Your task to perform on an android device: Search for Mexican restaurants on Maps Image 0: 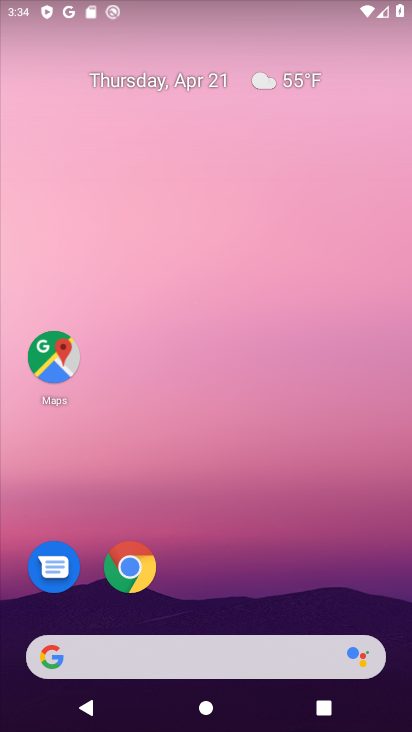
Step 0: drag from (225, 610) to (204, 42)
Your task to perform on an android device: Search for Mexican restaurants on Maps Image 1: 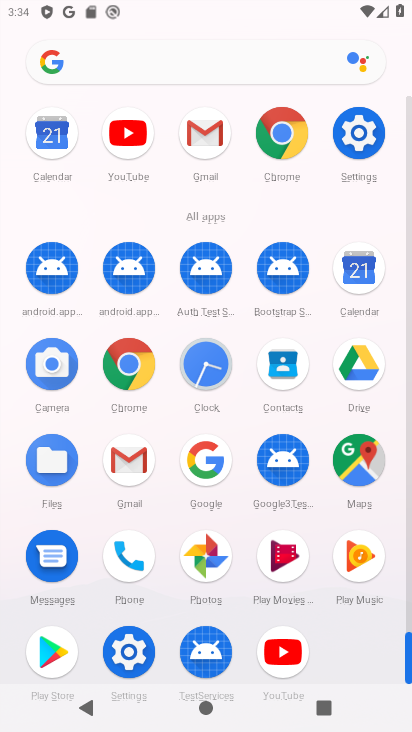
Step 1: click (371, 459)
Your task to perform on an android device: Search for Mexican restaurants on Maps Image 2: 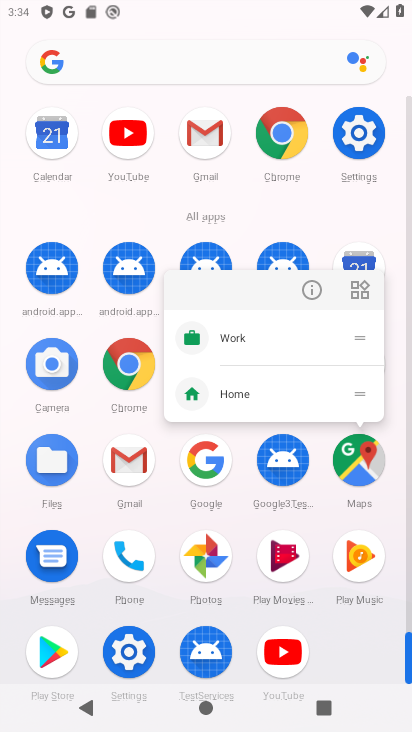
Step 2: click (359, 455)
Your task to perform on an android device: Search for Mexican restaurants on Maps Image 3: 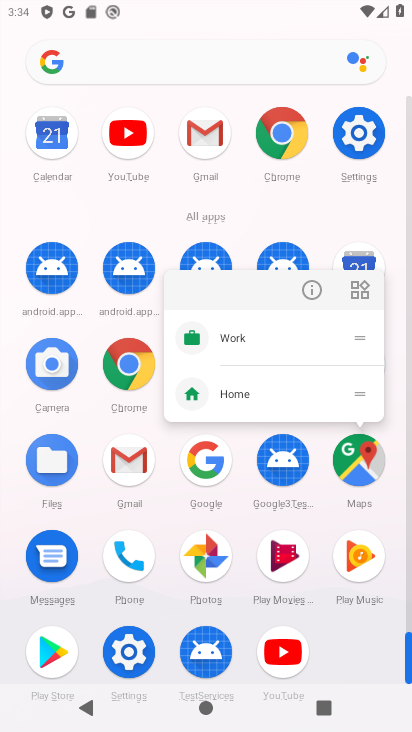
Step 3: click (358, 455)
Your task to perform on an android device: Search for Mexican restaurants on Maps Image 4: 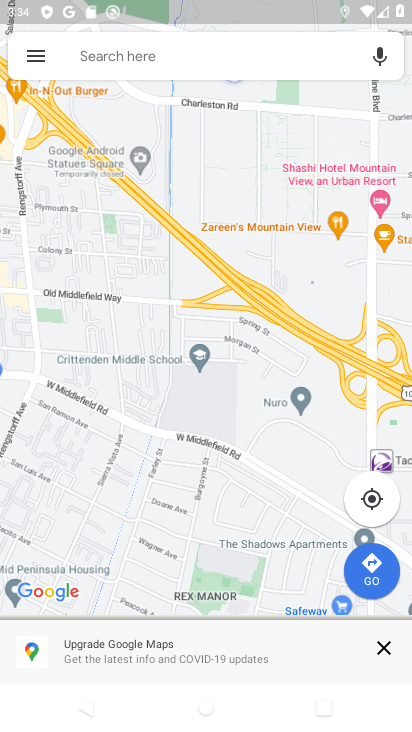
Step 4: click (381, 646)
Your task to perform on an android device: Search for Mexican restaurants on Maps Image 5: 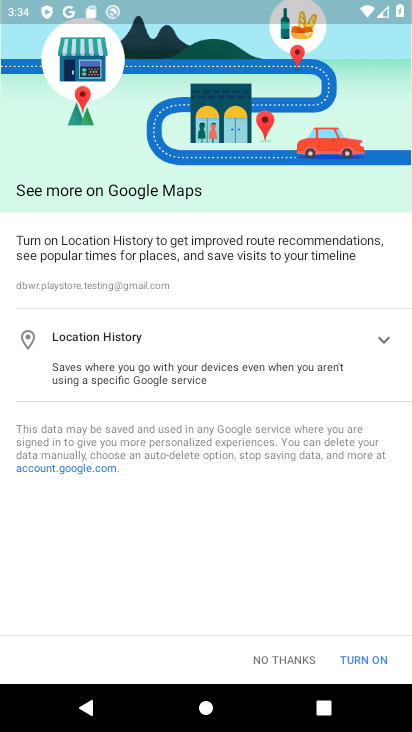
Step 5: click (279, 648)
Your task to perform on an android device: Search for Mexican restaurants on Maps Image 6: 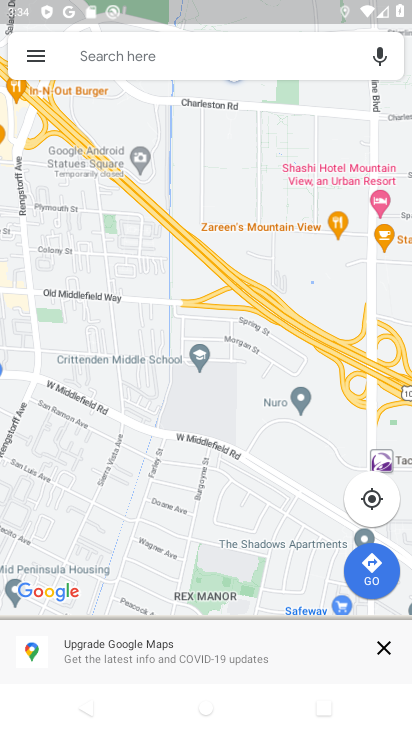
Step 6: click (135, 57)
Your task to perform on an android device: Search for Mexican restaurants on Maps Image 7: 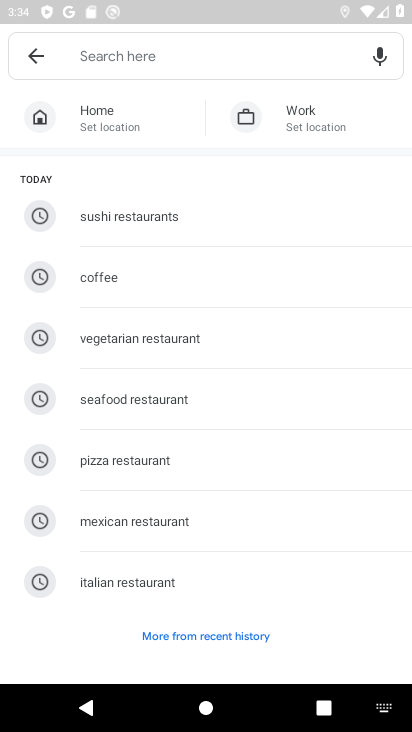
Step 7: click (177, 533)
Your task to perform on an android device: Search for Mexican restaurants on Maps Image 8: 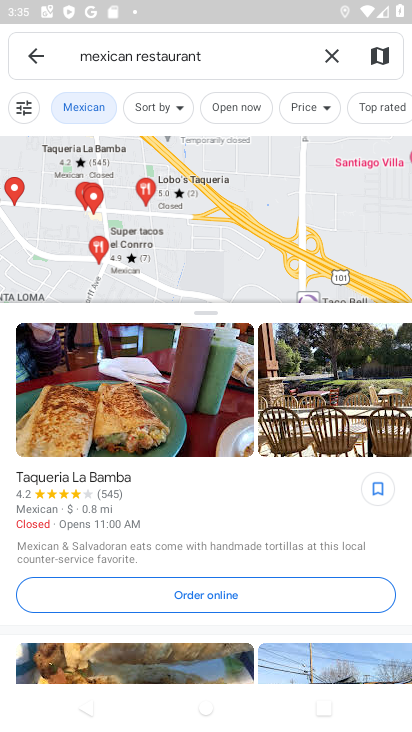
Step 8: task complete